Your task to perform on an android device: Find coffee shops on Maps Image 0: 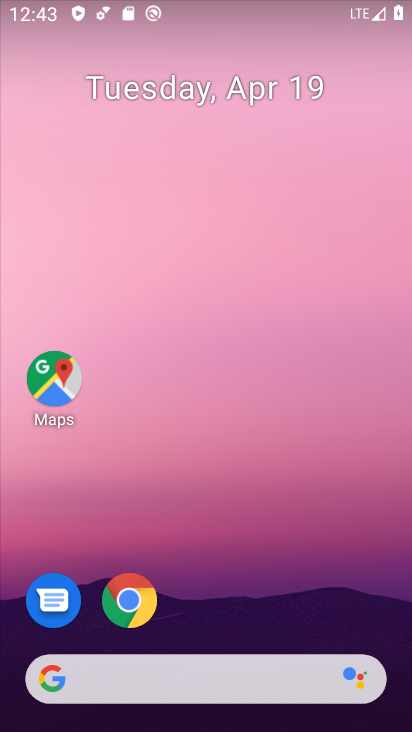
Step 0: drag from (234, 638) to (214, 3)
Your task to perform on an android device: Find coffee shops on Maps Image 1: 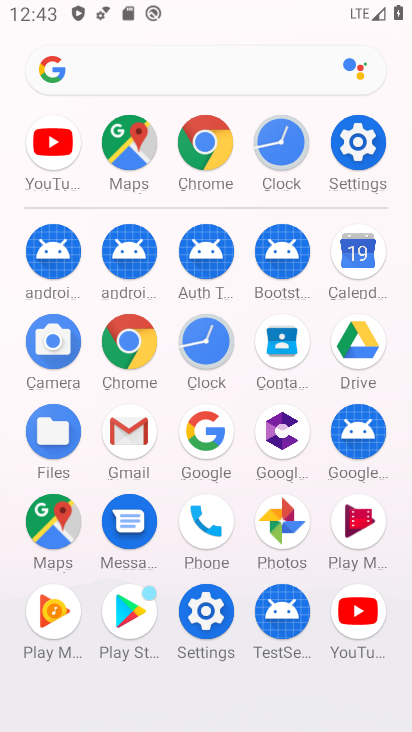
Step 1: click (57, 527)
Your task to perform on an android device: Find coffee shops on Maps Image 2: 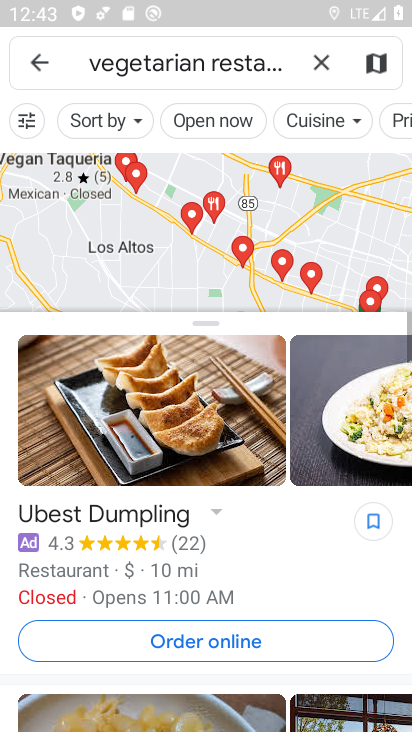
Step 2: click (323, 60)
Your task to perform on an android device: Find coffee shops on Maps Image 3: 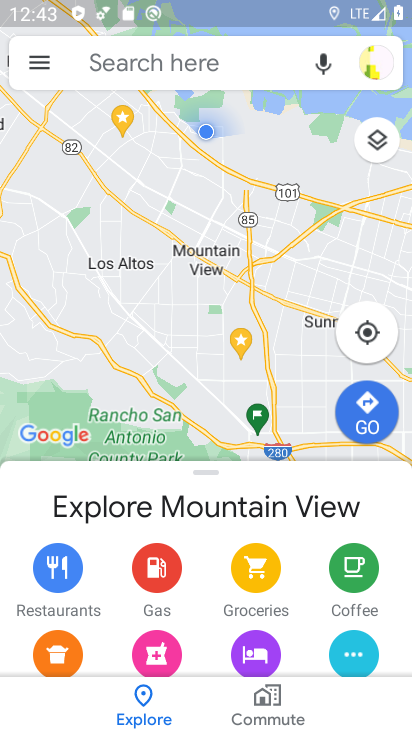
Step 3: click (207, 65)
Your task to perform on an android device: Find coffee shops on Maps Image 4: 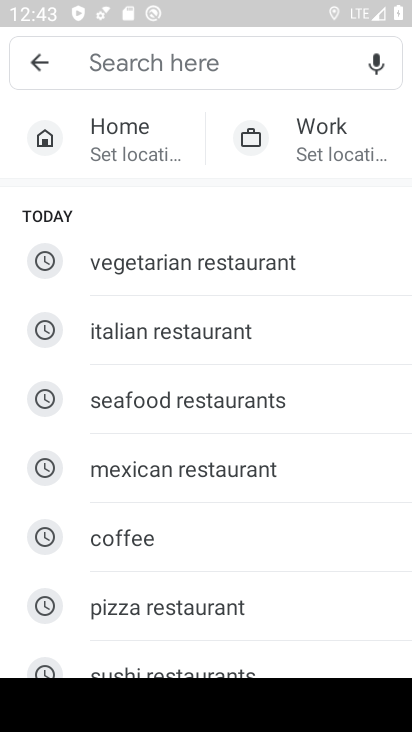
Step 4: type "coffee shop"
Your task to perform on an android device: Find coffee shops on Maps Image 5: 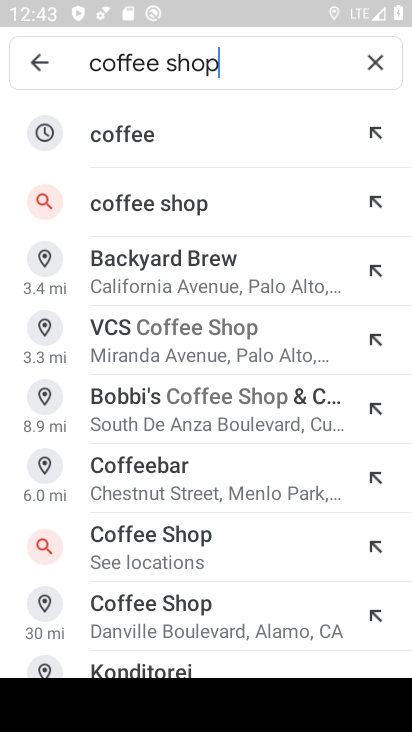
Step 5: click (174, 191)
Your task to perform on an android device: Find coffee shops on Maps Image 6: 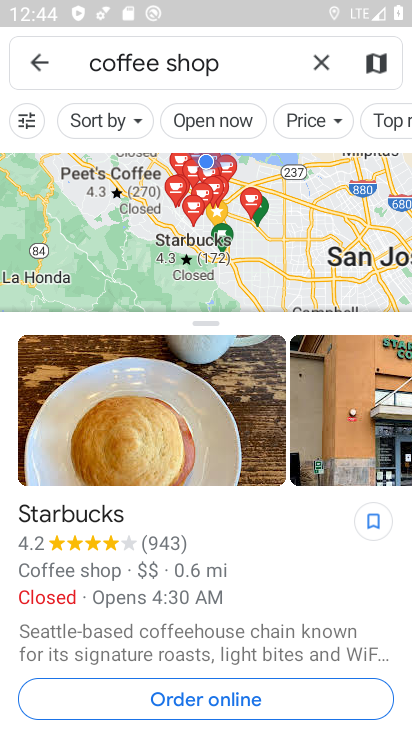
Step 6: task complete